Your task to perform on an android device: delete the emails in spam in the gmail app Image 0: 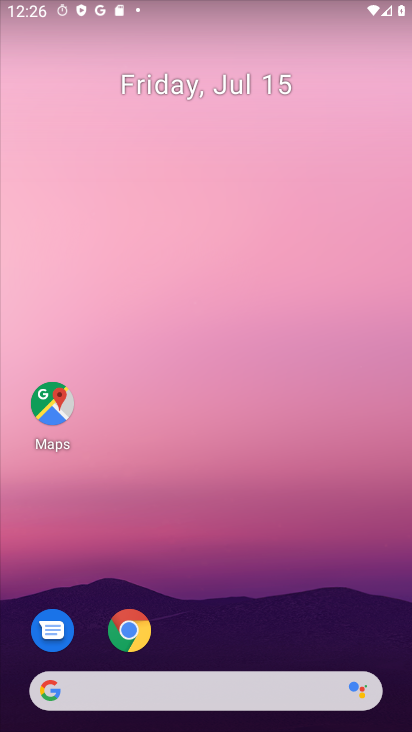
Step 0: click (231, 77)
Your task to perform on an android device: delete the emails in spam in the gmail app Image 1: 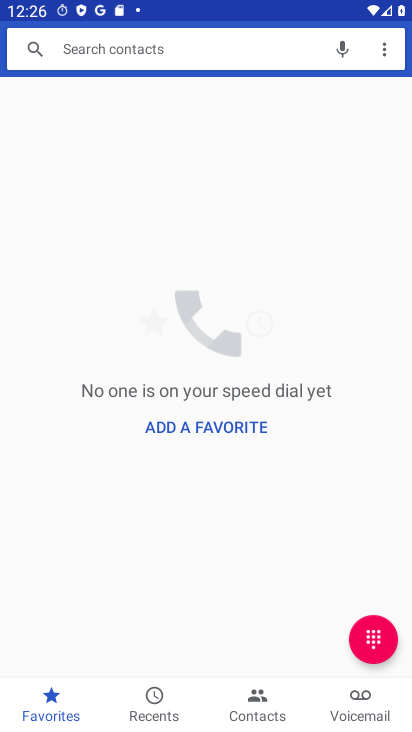
Step 1: press home button
Your task to perform on an android device: delete the emails in spam in the gmail app Image 2: 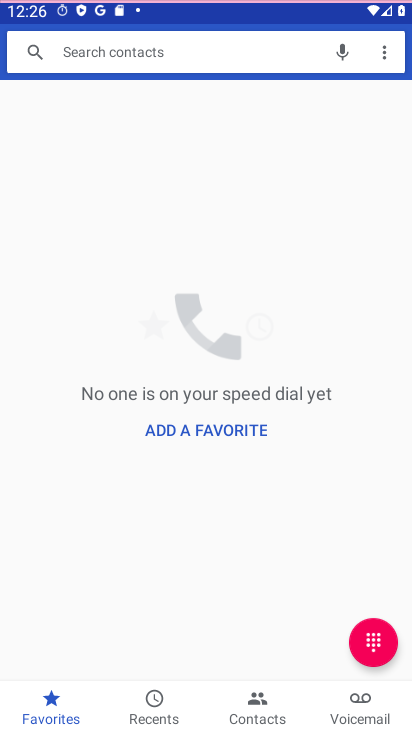
Step 2: drag from (157, 583) to (174, 36)
Your task to perform on an android device: delete the emails in spam in the gmail app Image 3: 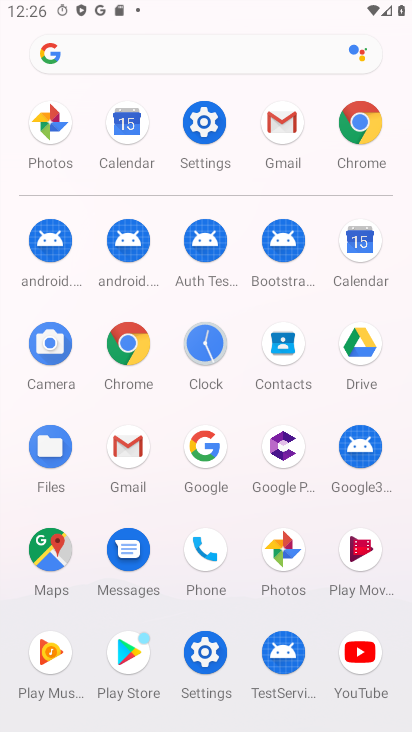
Step 3: click (281, 123)
Your task to perform on an android device: delete the emails in spam in the gmail app Image 4: 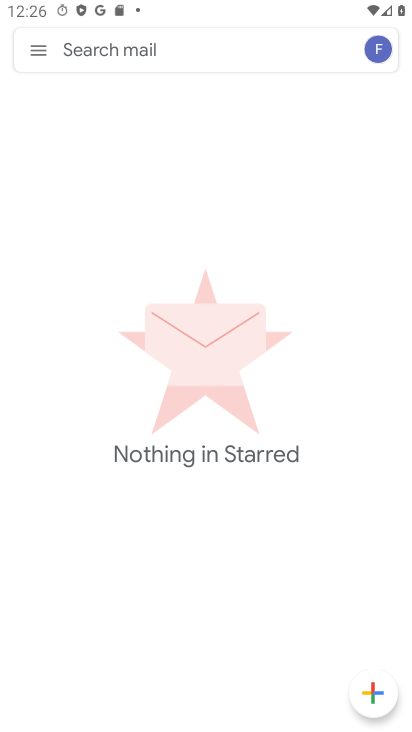
Step 4: drag from (196, 564) to (209, 336)
Your task to perform on an android device: delete the emails in spam in the gmail app Image 5: 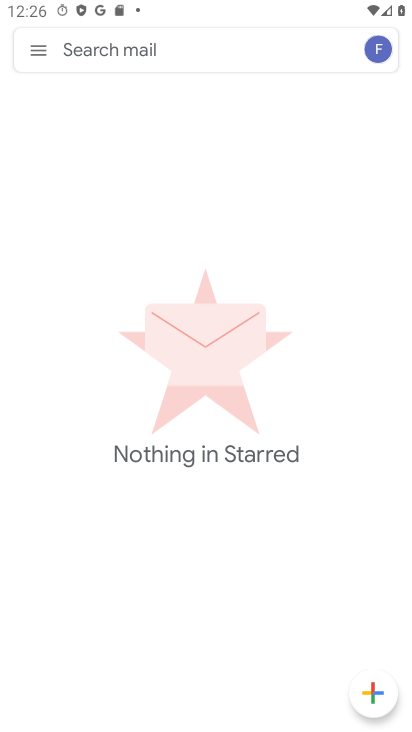
Step 5: click (36, 46)
Your task to perform on an android device: delete the emails in spam in the gmail app Image 6: 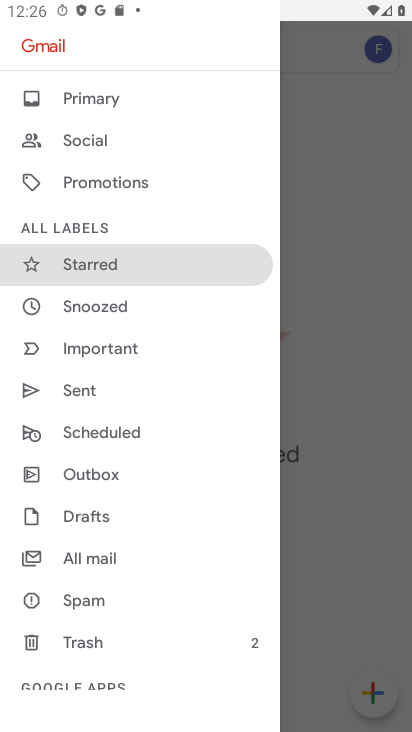
Step 6: drag from (114, 555) to (120, 263)
Your task to perform on an android device: delete the emails in spam in the gmail app Image 7: 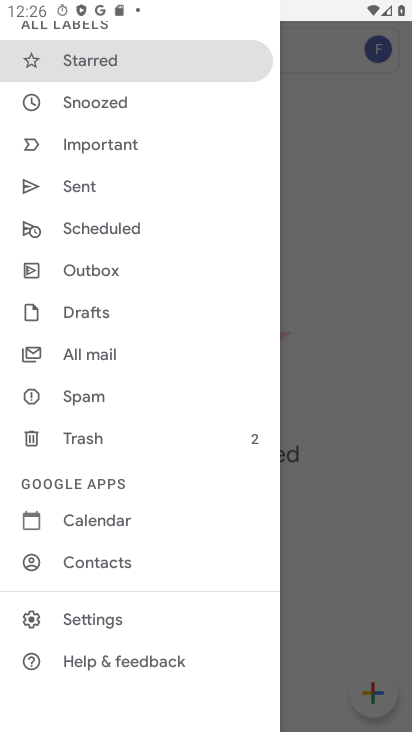
Step 7: click (98, 393)
Your task to perform on an android device: delete the emails in spam in the gmail app Image 8: 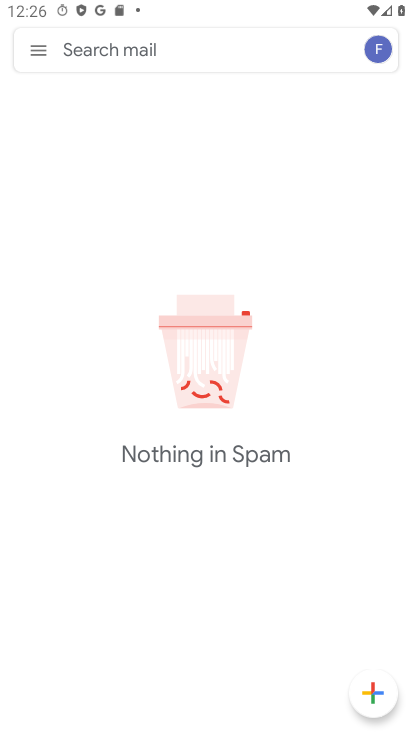
Step 8: task complete